Your task to perform on an android device: What's the weather today? Image 0: 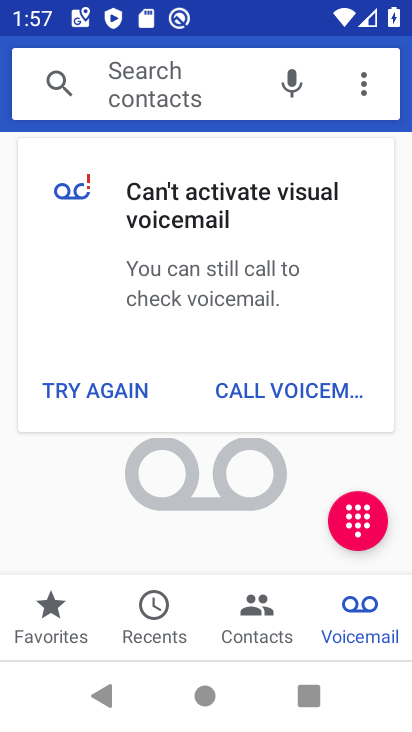
Step 0: press home button
Your task to perform on an android device: What's the weather today? Image 1: 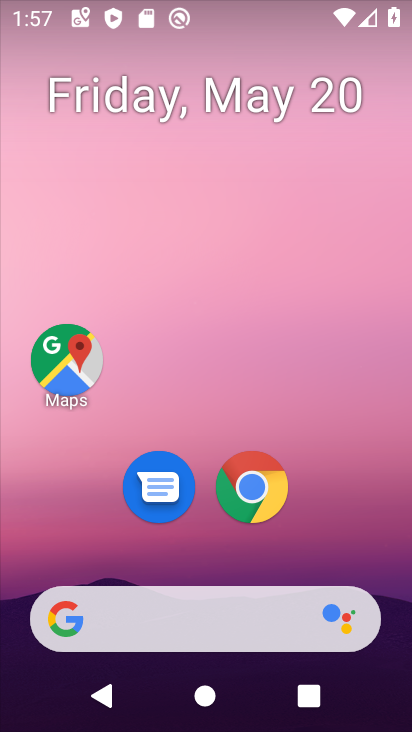
Step 1: drag from (362, 439) to (336, 2)
Your task to perform on an android device: What's the weather today? Image 2: 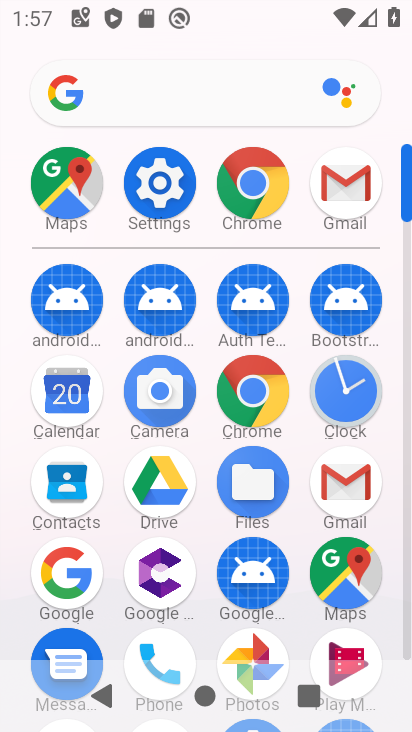
Step 2: click (72, 110)
Your task to perform on an android device: What's the weather today? Image 3: 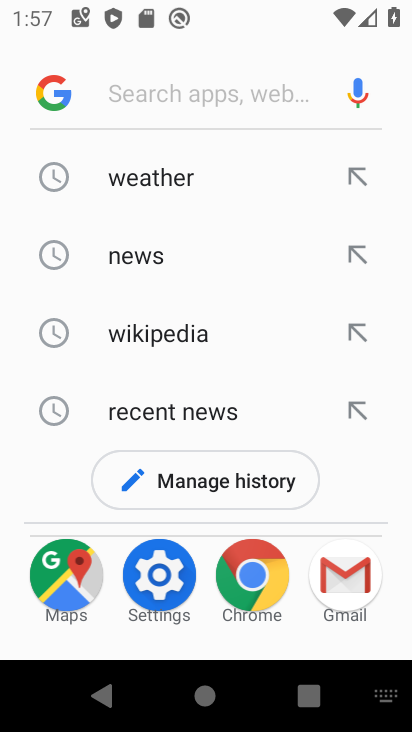
Step 3: click (37, 102)
Your task to perform on an android device: What's the weather today? Image 4: 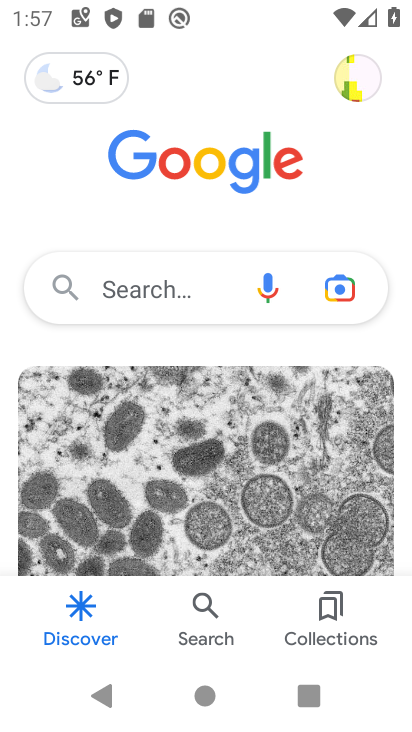
Step 4: click (71, 69)
Your task to perform on an android device: What's the weather today? Image 5: 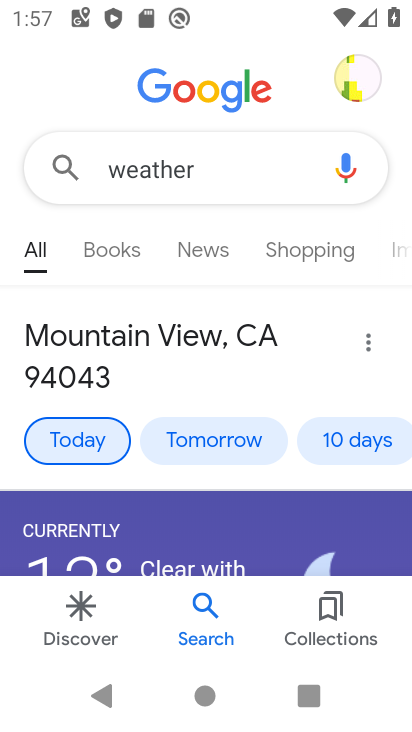
Step 5: task complete